Your task to perform on an android device: change notification settings in the gmail app Image 0: 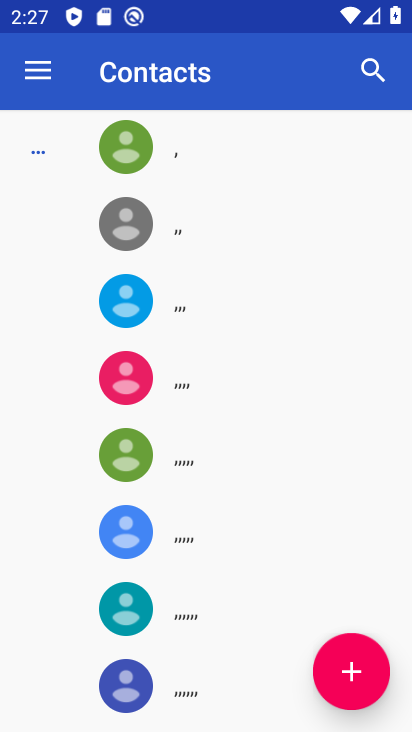
Step 0: press home button
Your task to perform on an android device: change notification settings in the gmail app Image 1: 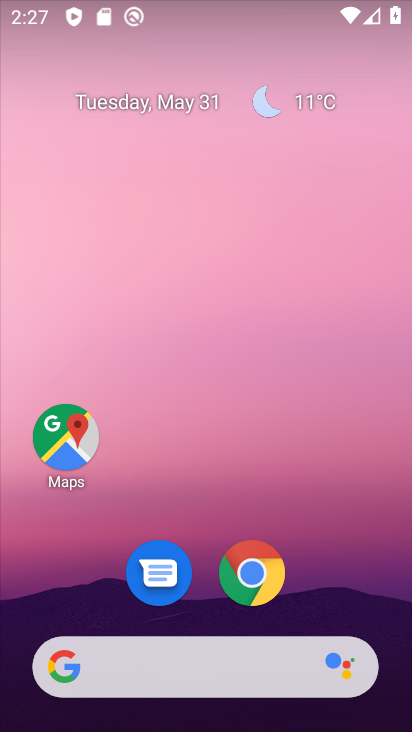
Step 1: drag from (404, 625) to (205, 126)
Your task to perform on an android device: change notification settings in the gmail app Image 2: 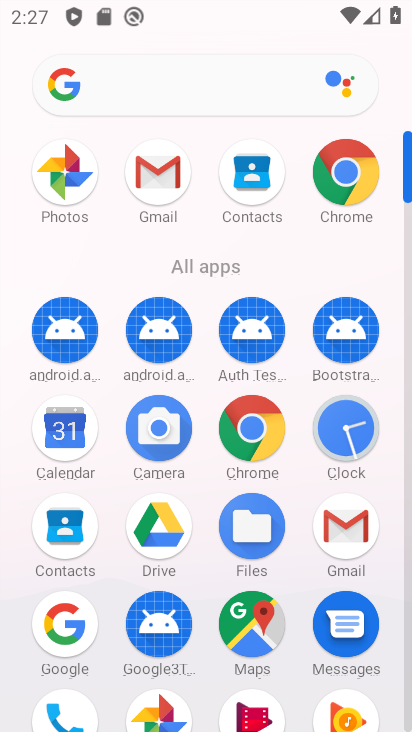
Step 2: click (156, 159)
Your task to perform on an android device: change notification settings in the gmail app Image 3: 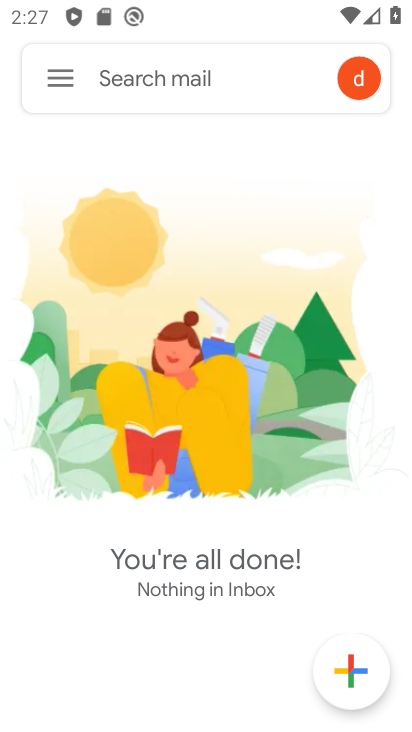
Step 3: click (54, 76)
Your task to perform on an android device: change notification settings in the gmail app Image 4: 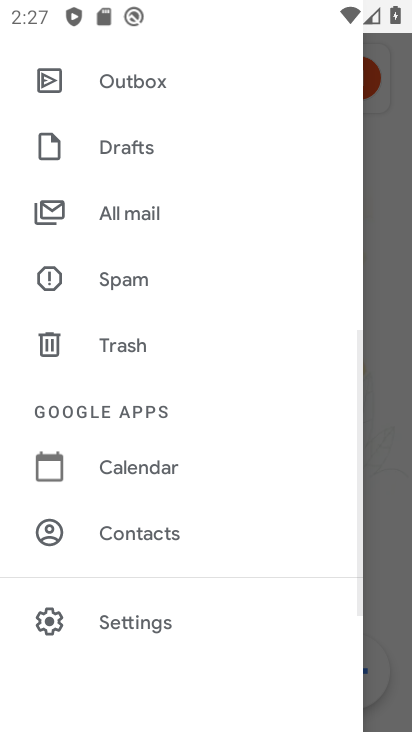
Step 4: click (140, 614)
Your task to perform on an android device: change notification settings in the gmail app Image 5: 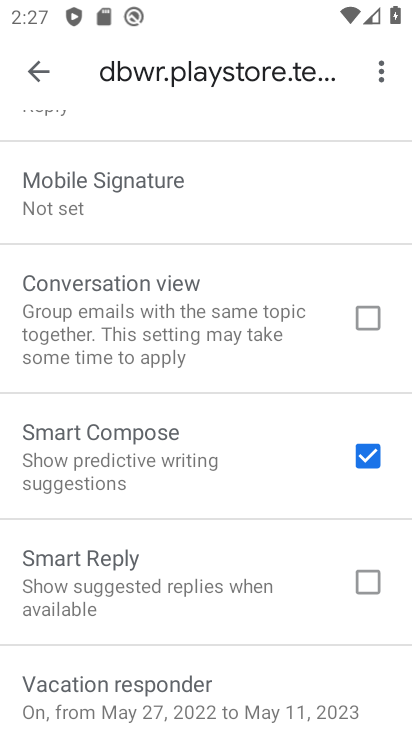
Step 5: drag from (197, 184) to (234, 610)
Your task to perform on an android device: change notification settings in the gmail app Image 6: 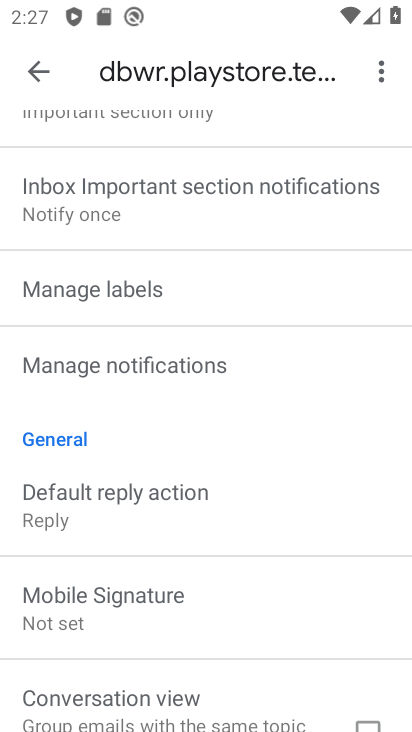
Step 6: click (219, 358)
Your task to perform on an android device: change notification settings in the gmail app Image 7: 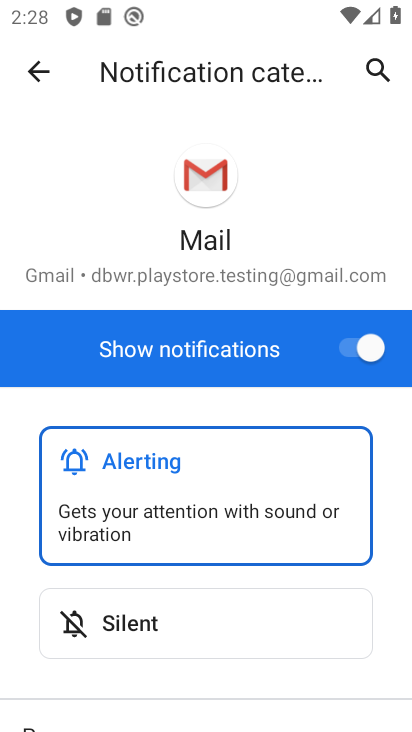
Step 7: drag from (271, 592) to (245, 323)
Your task to perform on an android device: change notification settings in the gmail app Image 8: 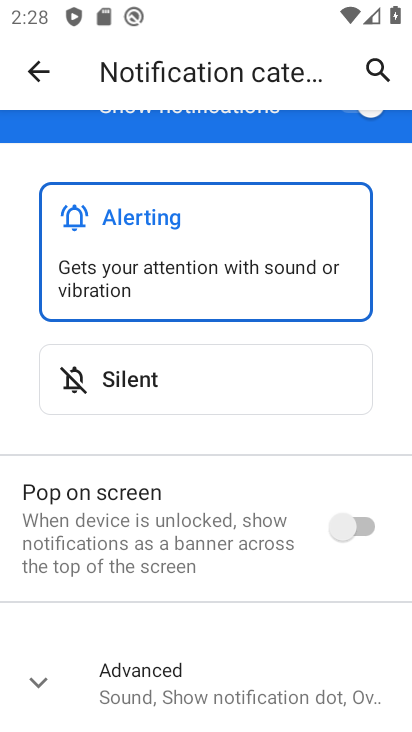
Step 8: click (265, 389)
Your task to perform on an android device: change notification settings in the gmail app Image 9: 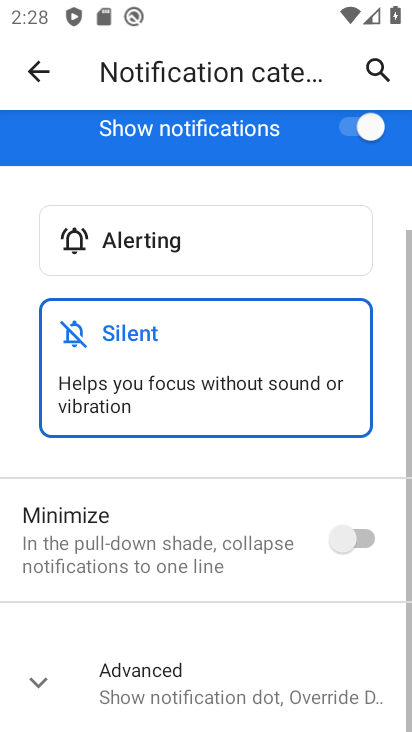
Step 9: click (352, 539)
Your task to perform on an android device: change notification settings in the gmail app Image 10: 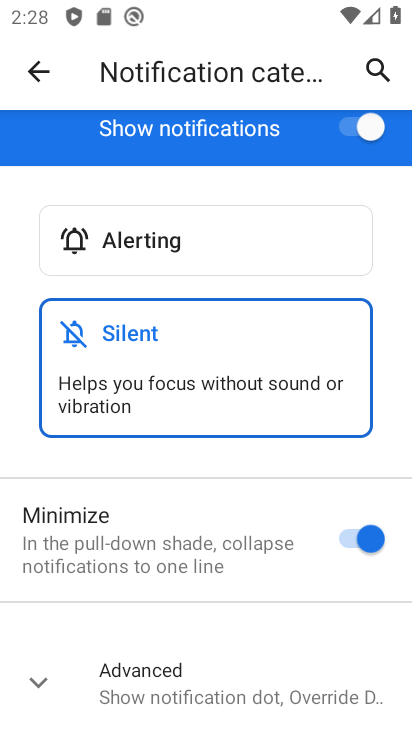
Step 10: task complete